Your task to perform on an android device: open app "Adobe Express: Graphic Design" (install if not already installed) and go to login screen Image 0: 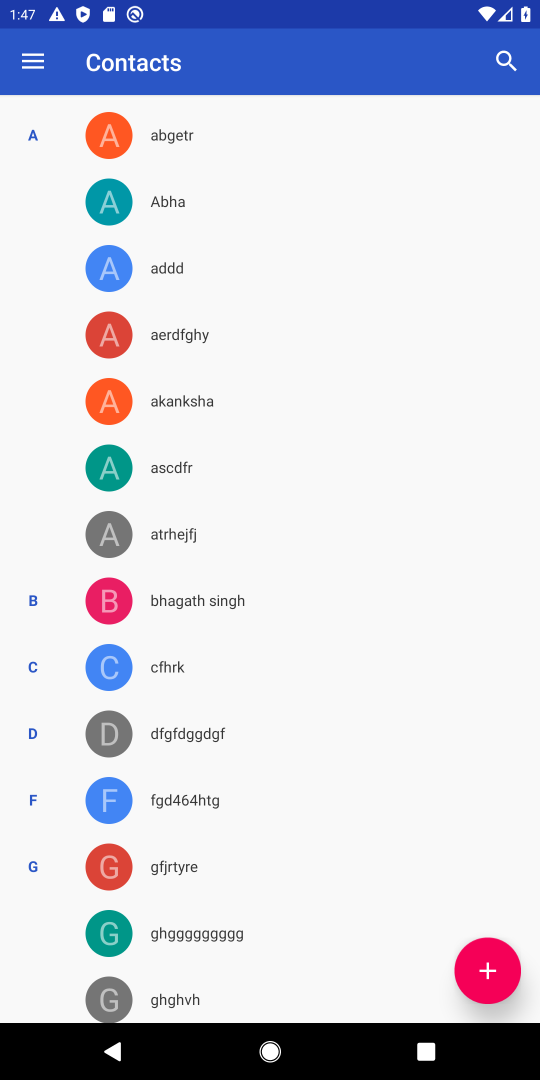
Step 0: press home button
Your task to perform on an android device: open app "Adobe Express: Graphic Design" (install if not already installed) and go to login screen Image 1: 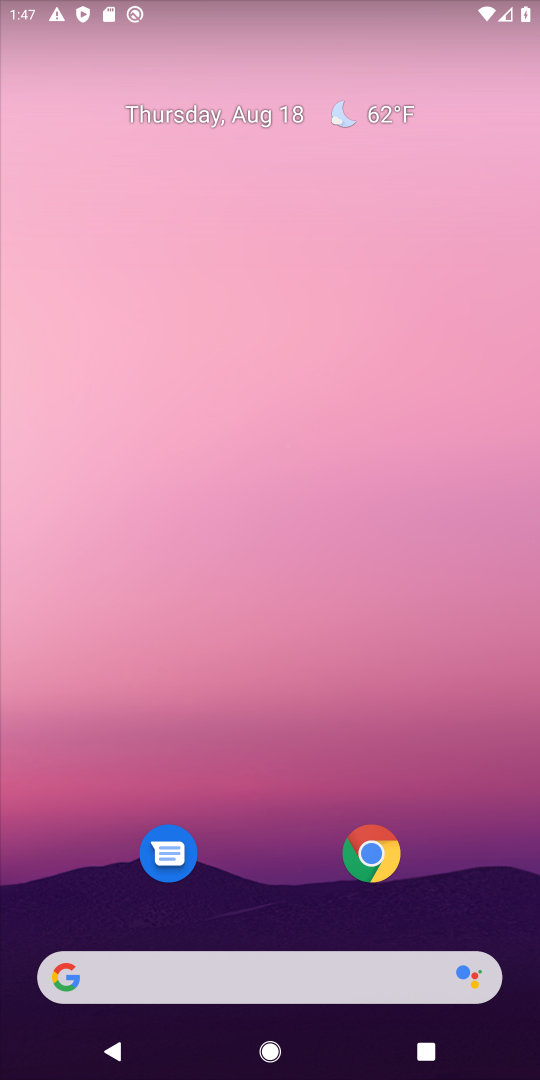
Step 1: drag from (468, 881) to (268, 26)
Your task to perform on an android device: open app "Adobe Express: Graphic Design" (install if not already installed) and go to login screen Image 2: 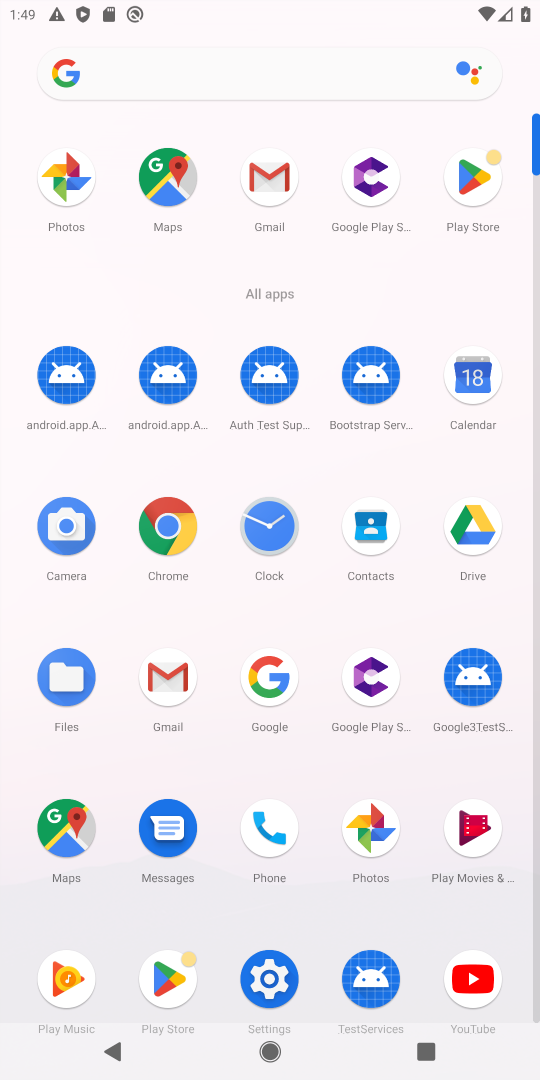
Step 2: click (463, 182)
Your task to perform on an android device: open app "Adobe Express: Graphic Design" (install if not already installed) and go to login screen Image 3: 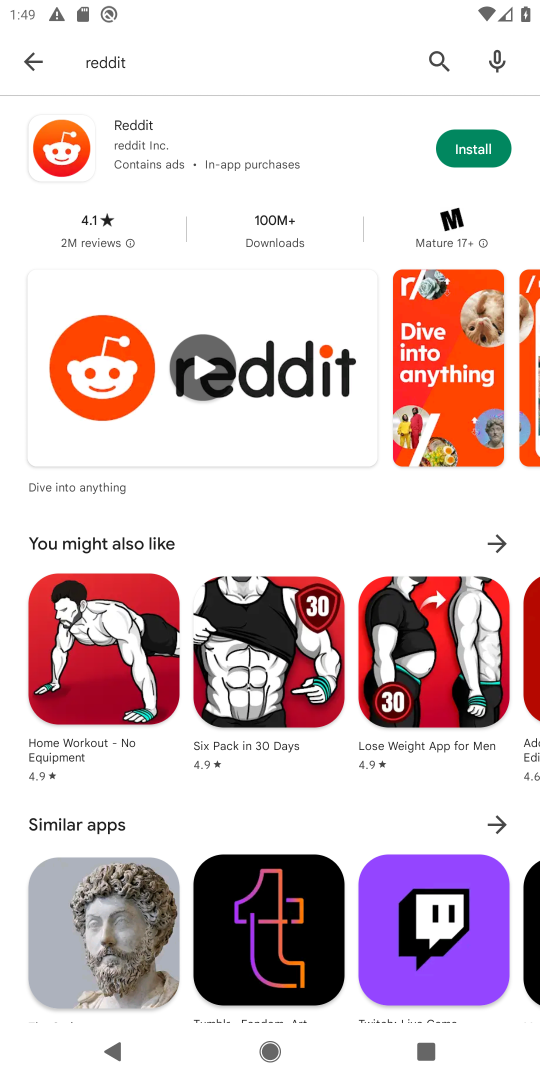
Step 3: press back button
Your task to perform on an android device: open app "Adobe Express: Graphic Design" (install if not already installed) and go to login screen Image 4: 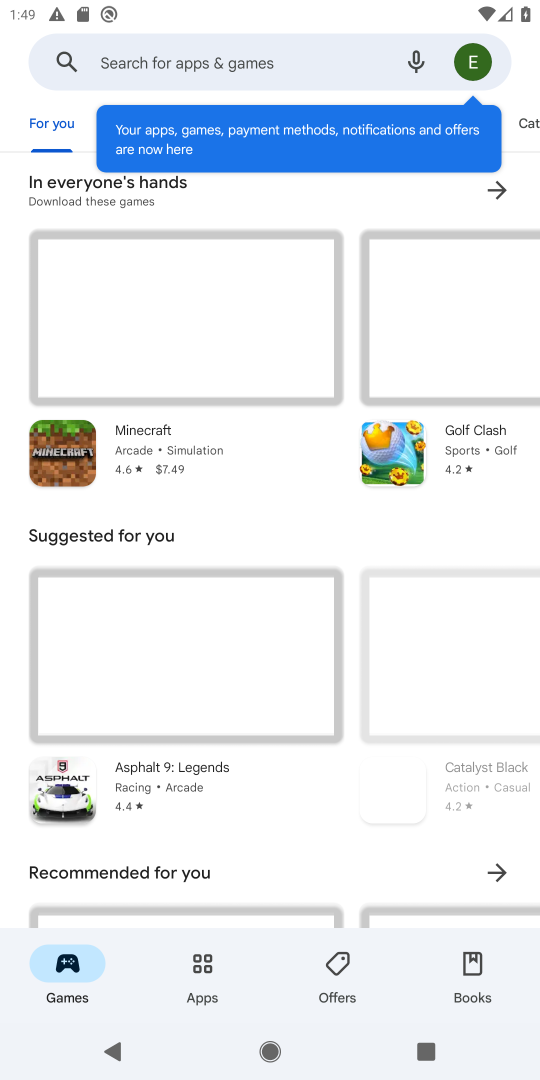
Step 4: click (165, 68)
Your task to perform on an android device: open app "Adobe Express: Graphic Design" (install if not already installed) and go to login screen Image 5: 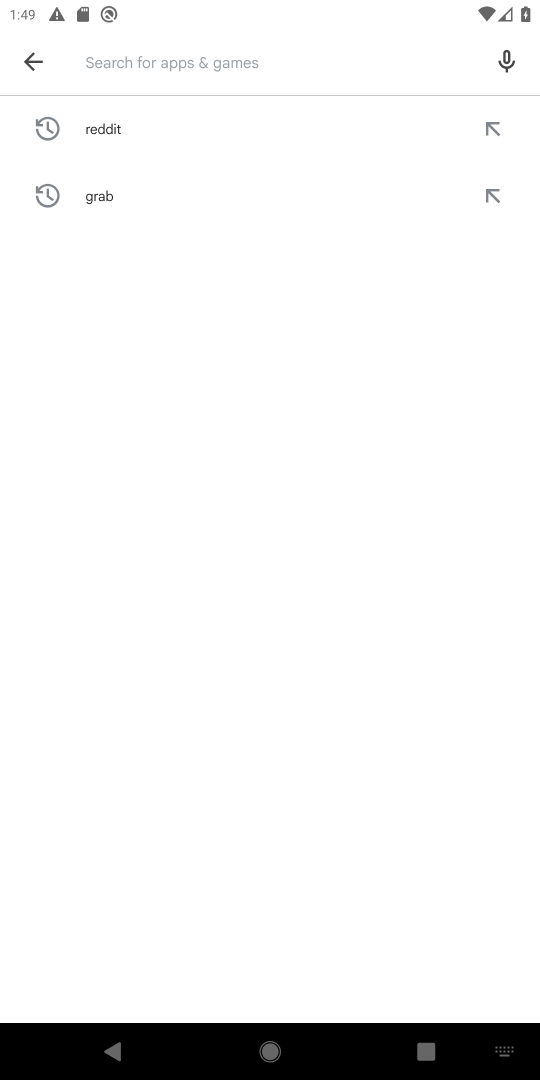
Step 5: type "Adobe Express: Graphic Design"
Your task to perform on an android device: open app "Adobe Express: Graphic Design" (install if not already installed) and go to login screen Image 6: 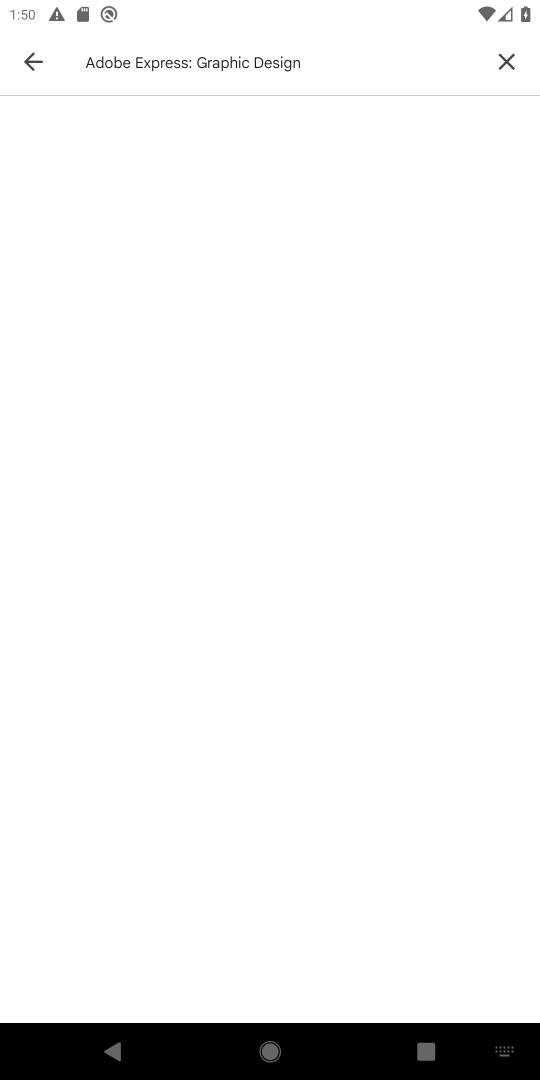
Step 6: task complete